Your task to perform on an android device: Is it going to rain today? Image 0: 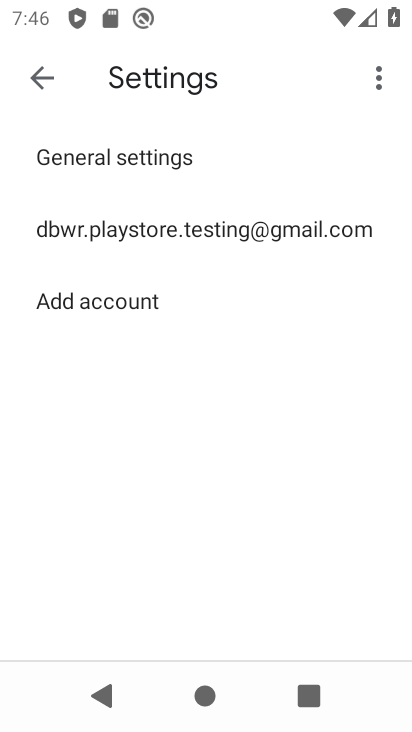
Step 0: press home button
Your task to perform on an android device: Is it going to rain today? Image 1: 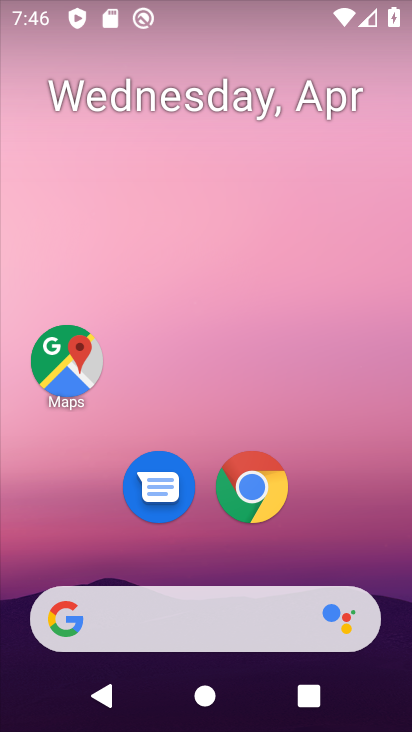
Step 1: drag from (328, 508) to (317, 50)
Your task to perform on an android device: Is it going to rain today? Image 2: 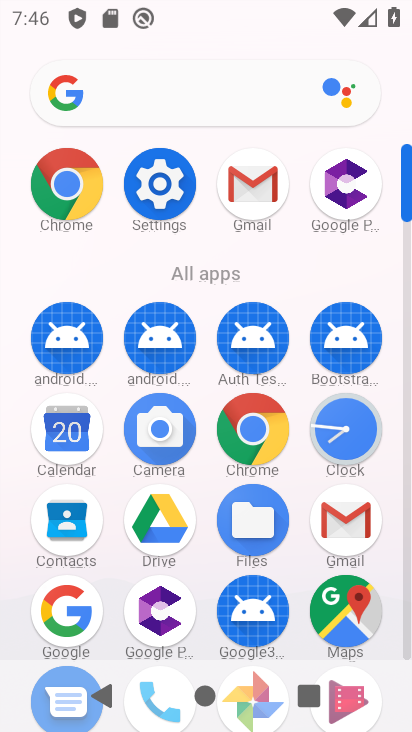
Step 2: click (261, 437)
Your task to perform on an android device: Is it going to rain today? Image 3: 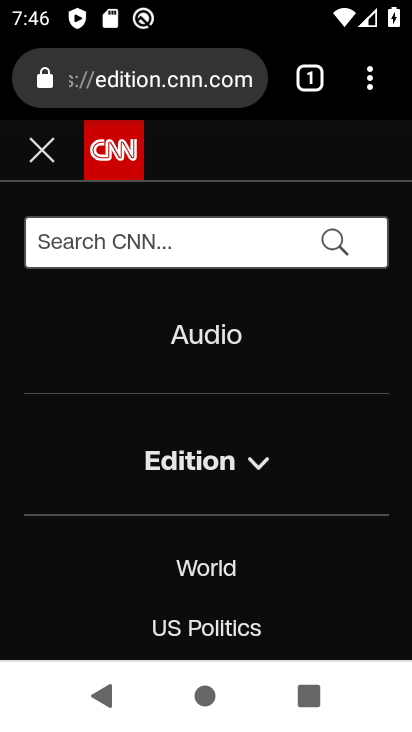
Step 3: click (225, 76)
Your task to perform on an android device: Is it going to rain today? Image 4: 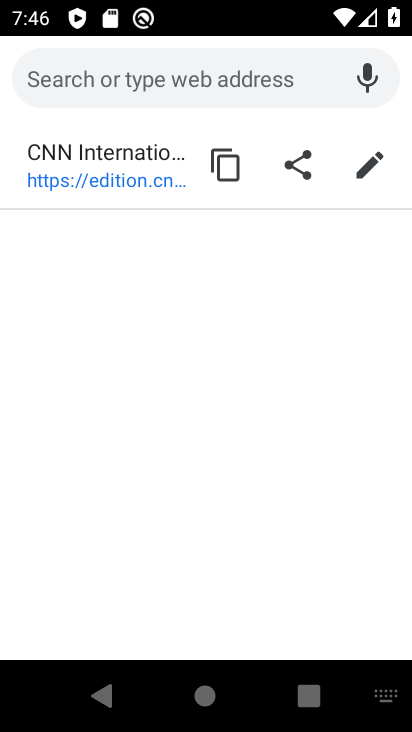
Step 4: type "weather"
Your task to perform on an android device: Is it going to rain today? Image 5: 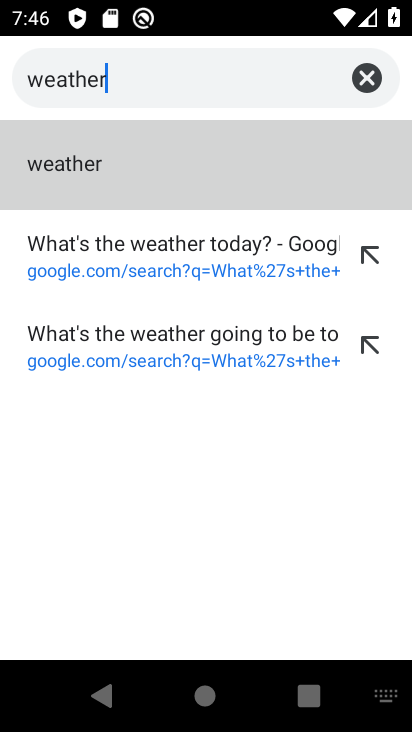
Step 5: click (104, 144)
Your task to perform on an android device: Is it going to rain today? Image 6: 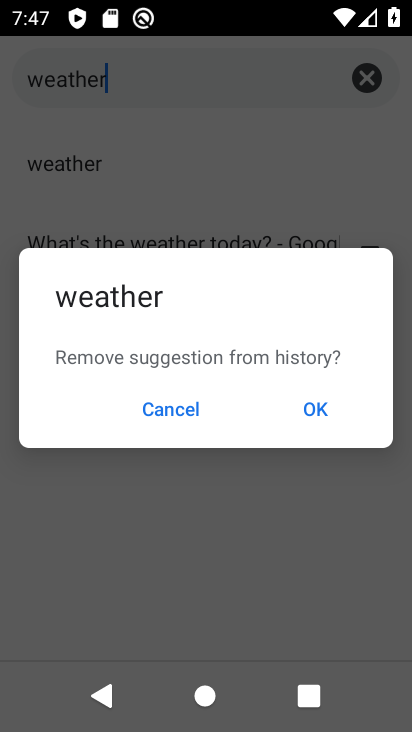
Step 6: click (186, 408)
Your task to perform on an android device: Is it going to rain today? Image 7: 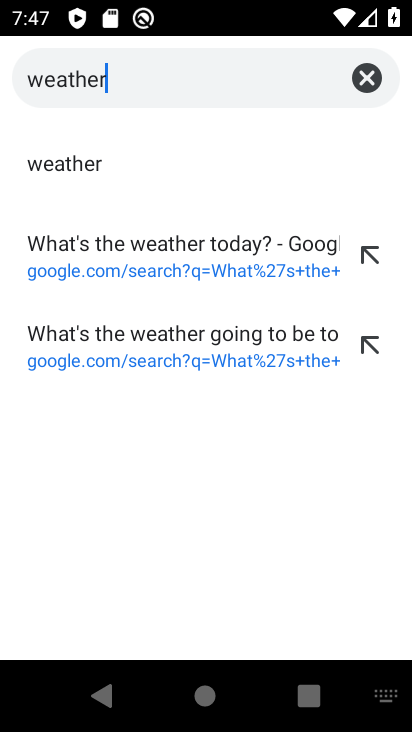
Step 7: click (86, 164)
Your task to perform on an android device: Is it going to rain today? Image 8: 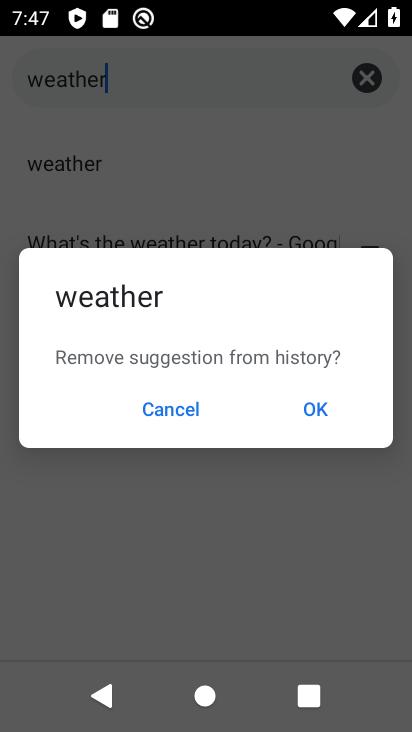
Step 8: click (156, 408)
Your task to perform on an android device: Is it going to rain today? Image 9: 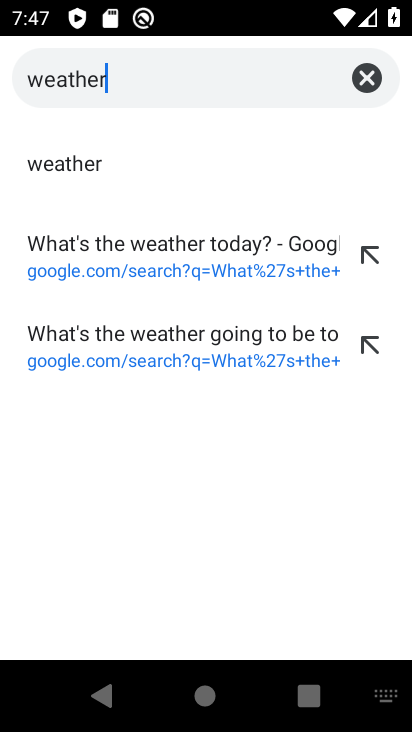
Step 9: press enter
Your task to perform on an android device: Is it going to rain today? Image 10: 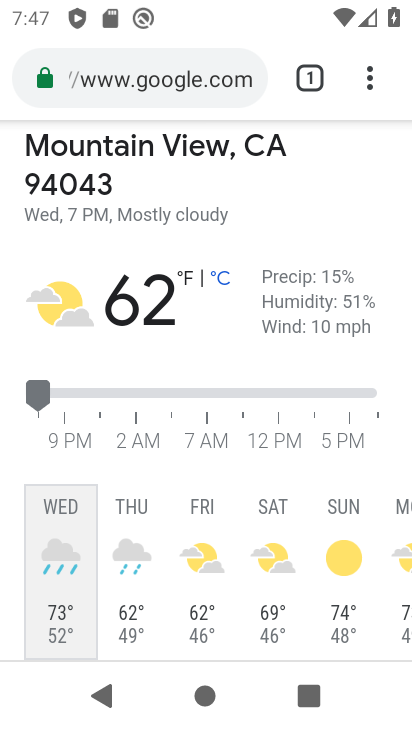
Step 10: task complete